Your task to perform on an android device: change notification settings in the gmail app Image 0: 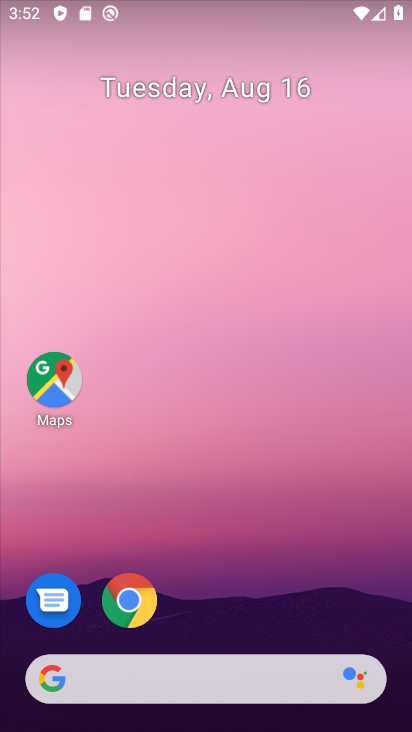
Step 0: drag from (228, 360) to (273, 56)
Your task to perform on an android device: change notification settings in the gmail app Image 1: 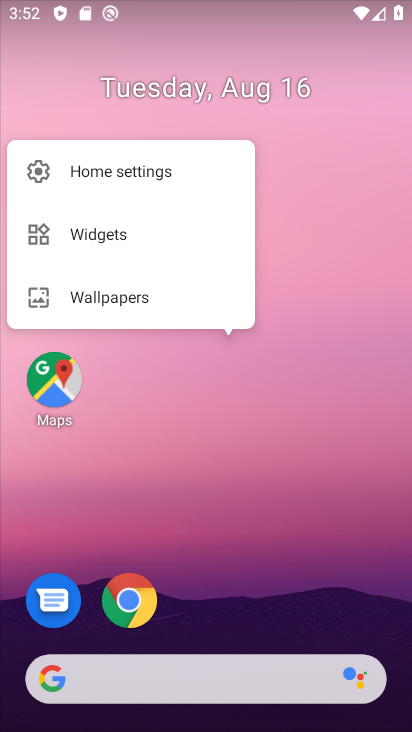
Step 1: drag from (233, 169) to (240, 93)
Your task to perform on an android device: change notification settings in the gmail app Image 2: 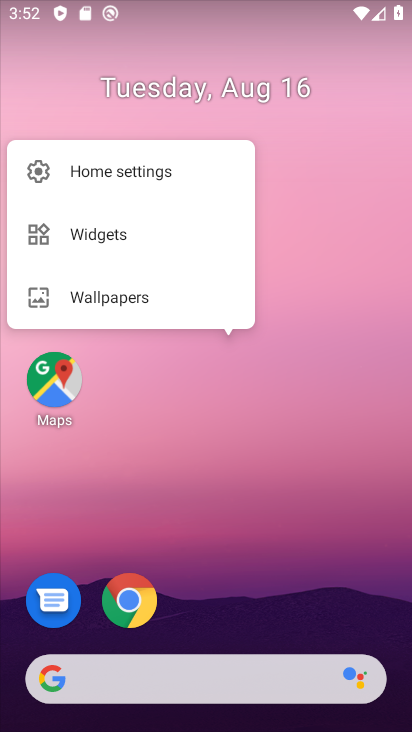
Step 2: click (300, 573)
Your task to perform on an android device: change notification settings in the gmail app Image 3: 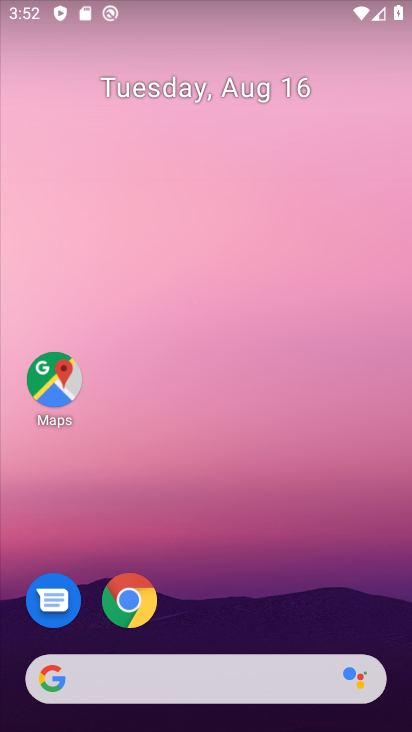
Step 3: drag from (230, 614) to (253, 127)
Your task to perform on an android device: change notification settings in the gmail app Image 4: 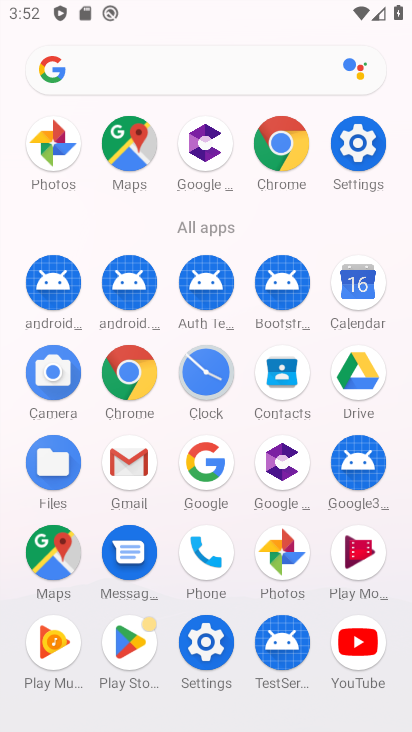
Step 4: click (131, 461)
Your task to perform on an android device: change notification settings in the gmail app Image 5: 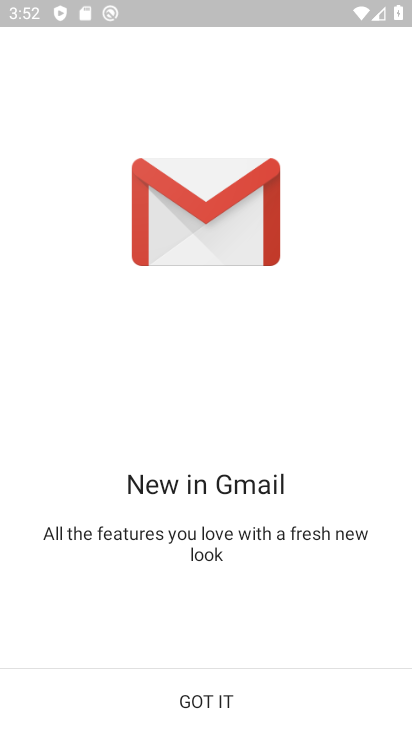
Step 5: click (247, 681)
Your task to perform on an android device: change notification settings in the gmail app Image 6: 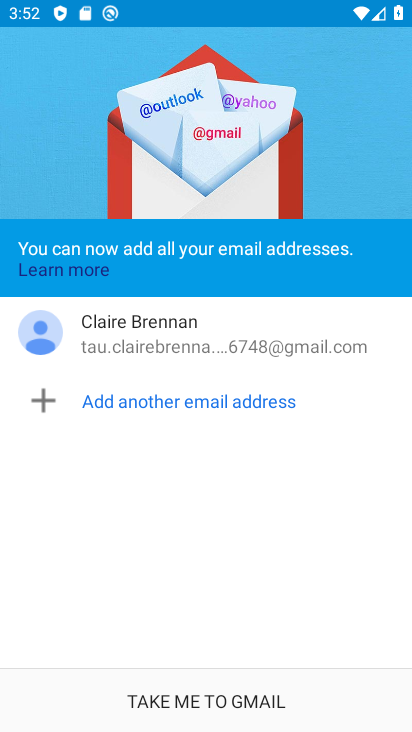
Step 6: click (215, 698)
Your task to perform on an android device: change notification settings in the gmail app Image 7: 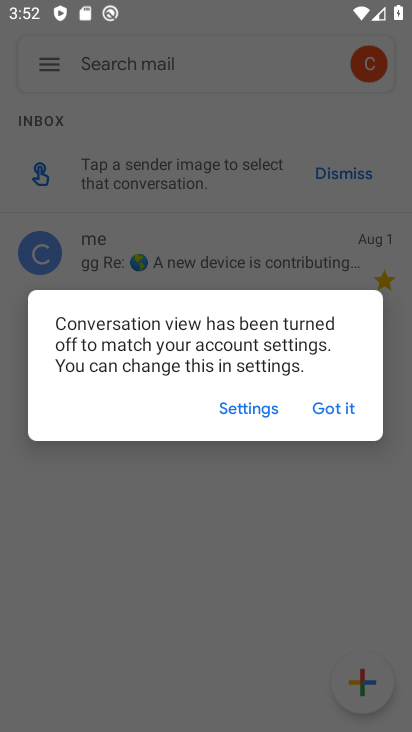
Step 7: click (333, 406)
Your task to perform on an android device: change notification settings in the gmail app Image 8: 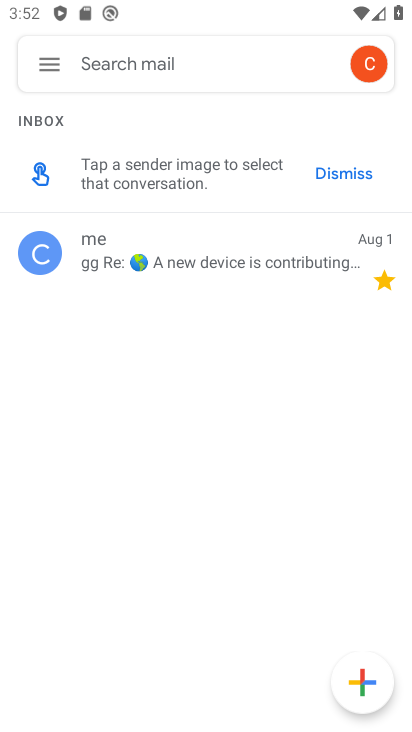
Step 8: click (268, 412)
Your task to perform on an android device: change notification settings in the gmail app Image 9: 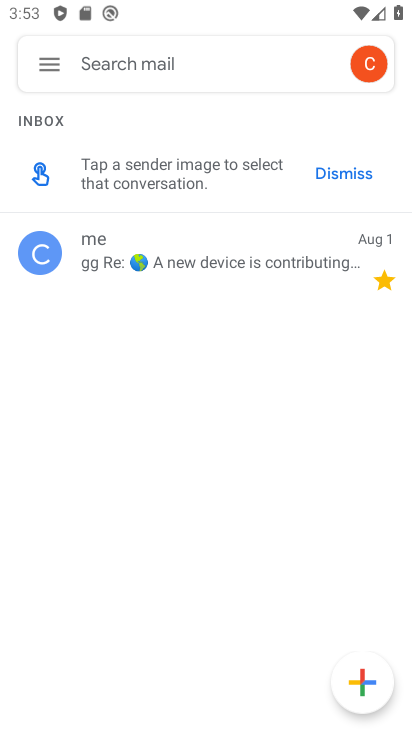
Step 9: click (46, 58)
Your task to perform on an android device: change notification settings in the gmail app Image 10: 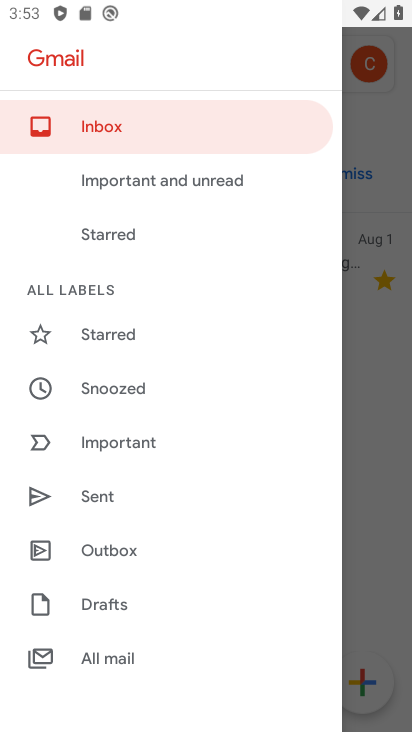
Step 10: click (122, 323)
Your task to perform on an android device: change notification settings in the gmail app Image 11: 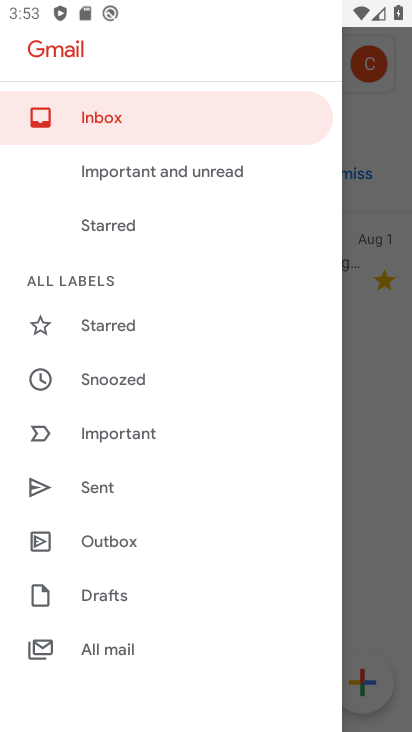
Step 11: drag from (129, 434) to (154, 204)
Your task to perform on an android device: change notification settings in the gmail app Image 12: 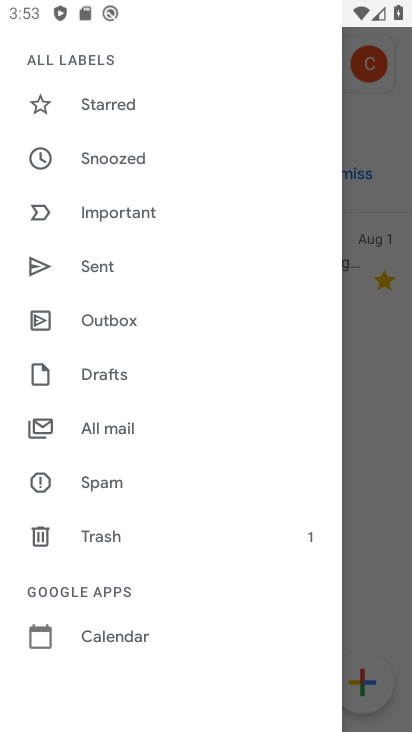
Step 12: drag from (151, 621) to (150, 330)
Your task to perform on an android device: change notification settings in the gmail app Image 13: 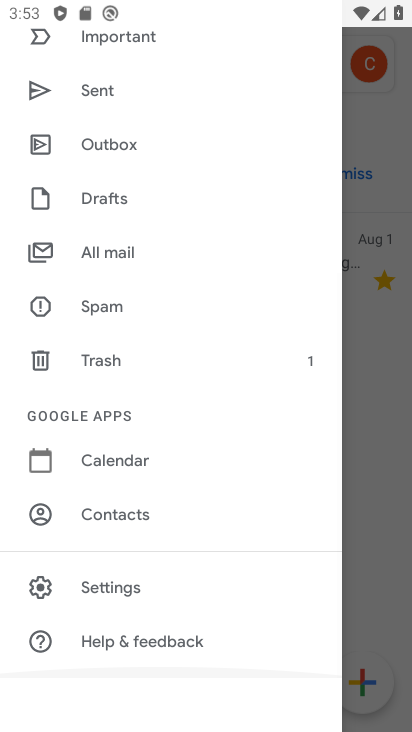
Step 13: drag from (120, 595) to (136, 142)
Your task to perform on an android device: change notification settings in the gmail app Image 14: 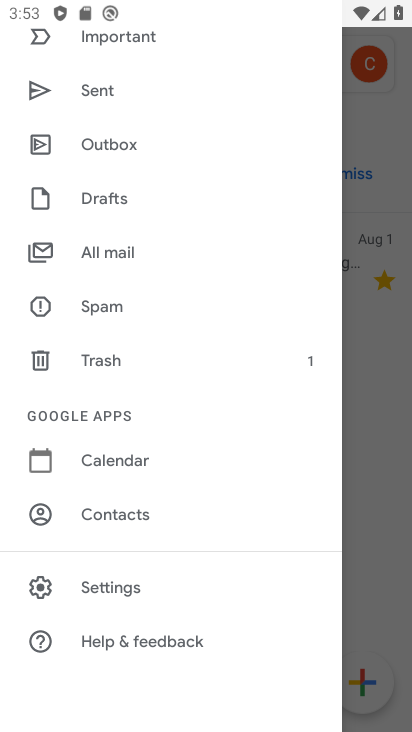
Step 14: click (132, 592)
Your task to perform on an android device: change notification settings in the gmail app Image 15: 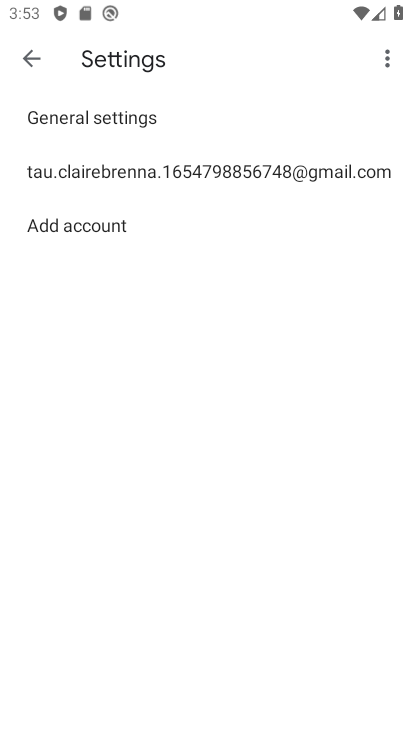
Step 15: click (103, 114)
Your task to perform on an android device: change notification settings in the gmail app Image 16: 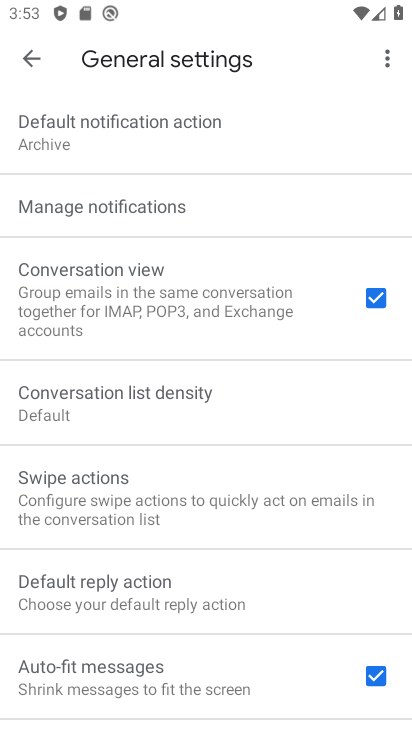
Step 16: click (129, 208)
Your task to perform on an android device: change notification settings in the gmail app Image 17: 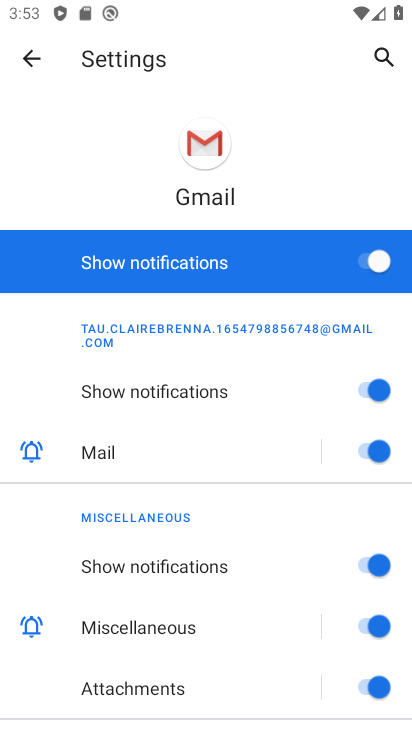
Step 17: click (345, 271)
Your task to perform on an android device: change notification settings in the gmail app Image 18: 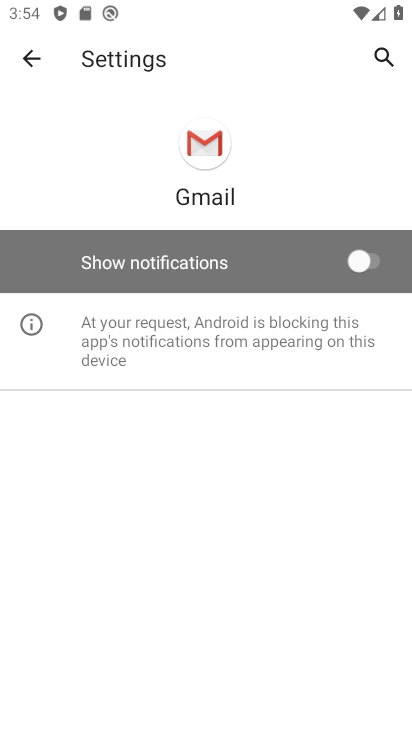
Step 18: task complete